Your task to perform on an android device: toggle notifications settings in the gmail app Image 0: 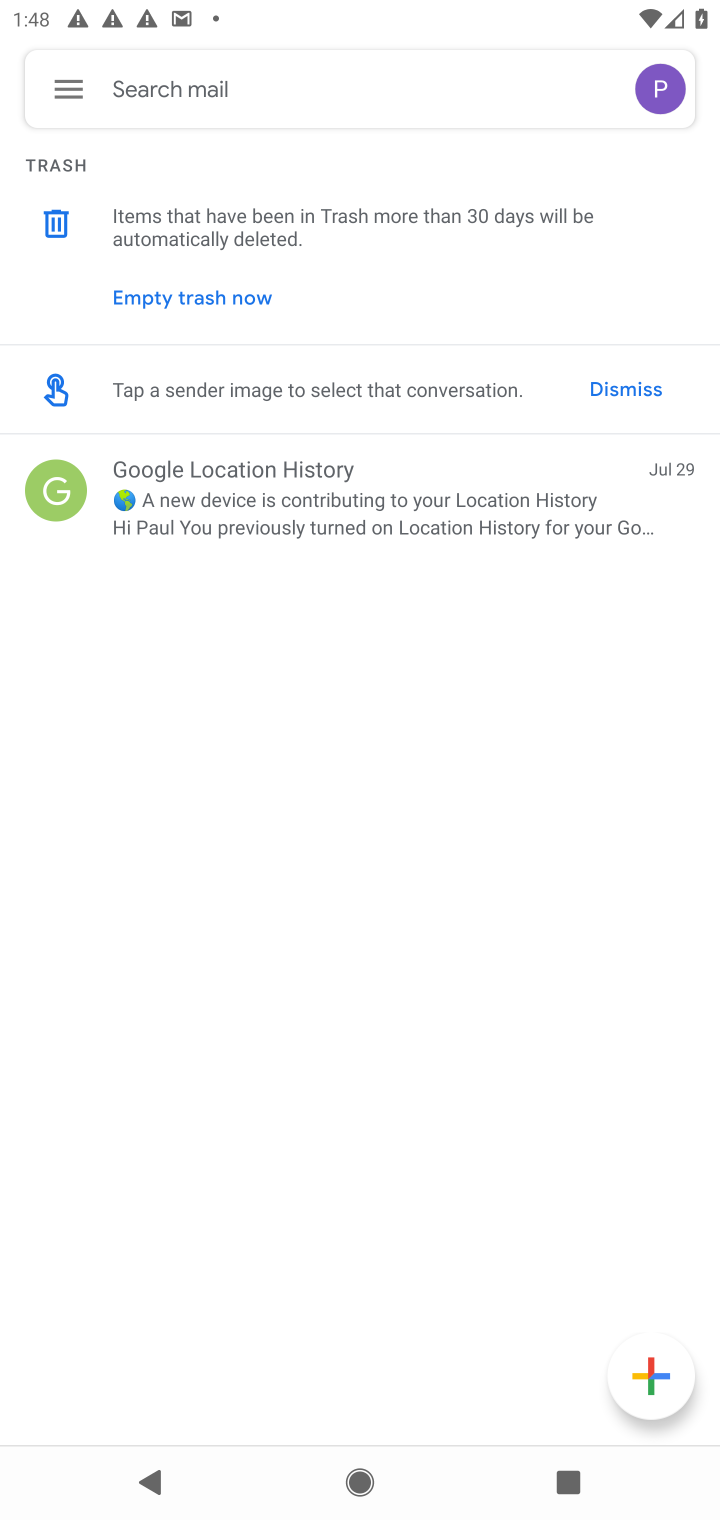
Step 0: press home button
Your task to perform on an android device: toggle notifications settings in the gmail app Image 1: 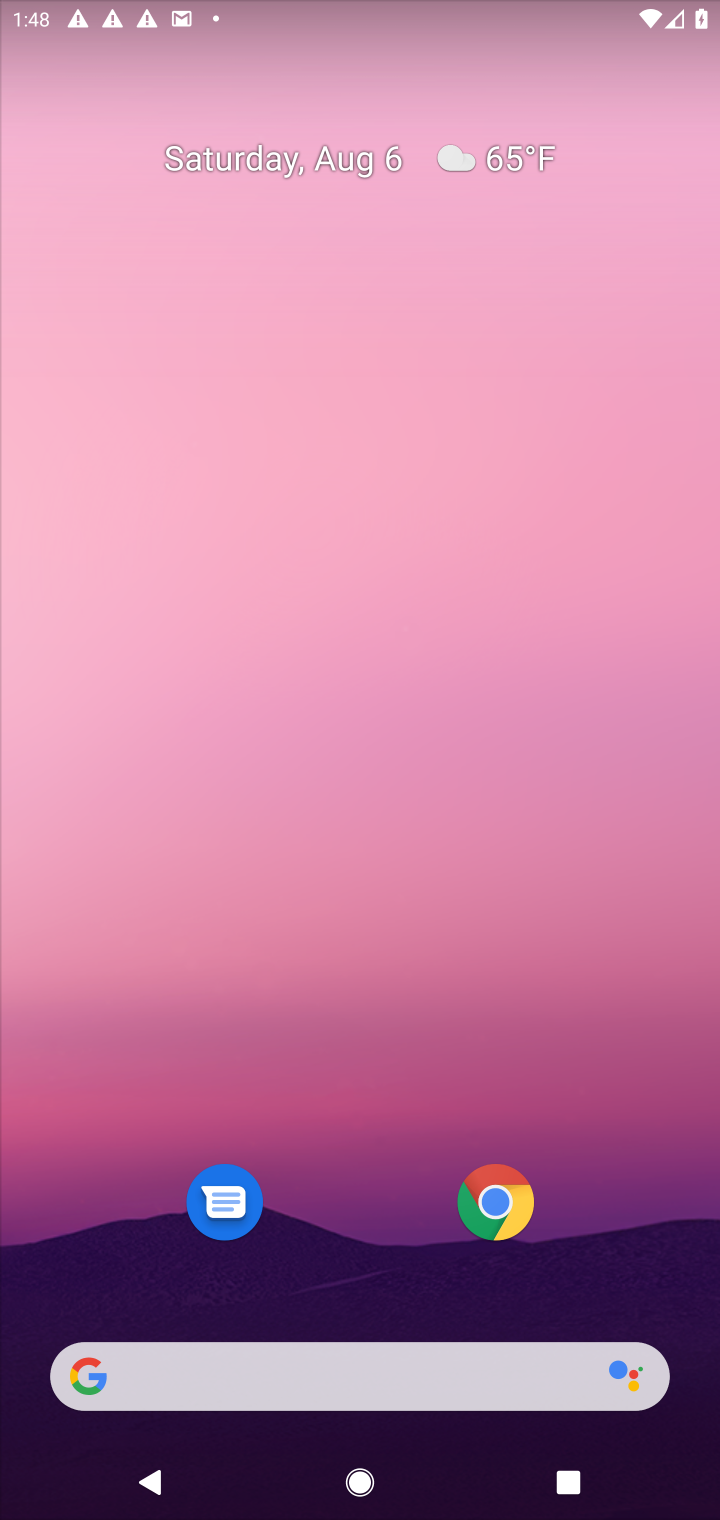
Step 1: drag from (404, 1316) to (442, 459)
Your task to perform on an android device: toggle notifications settings in the gmail app Image 2: 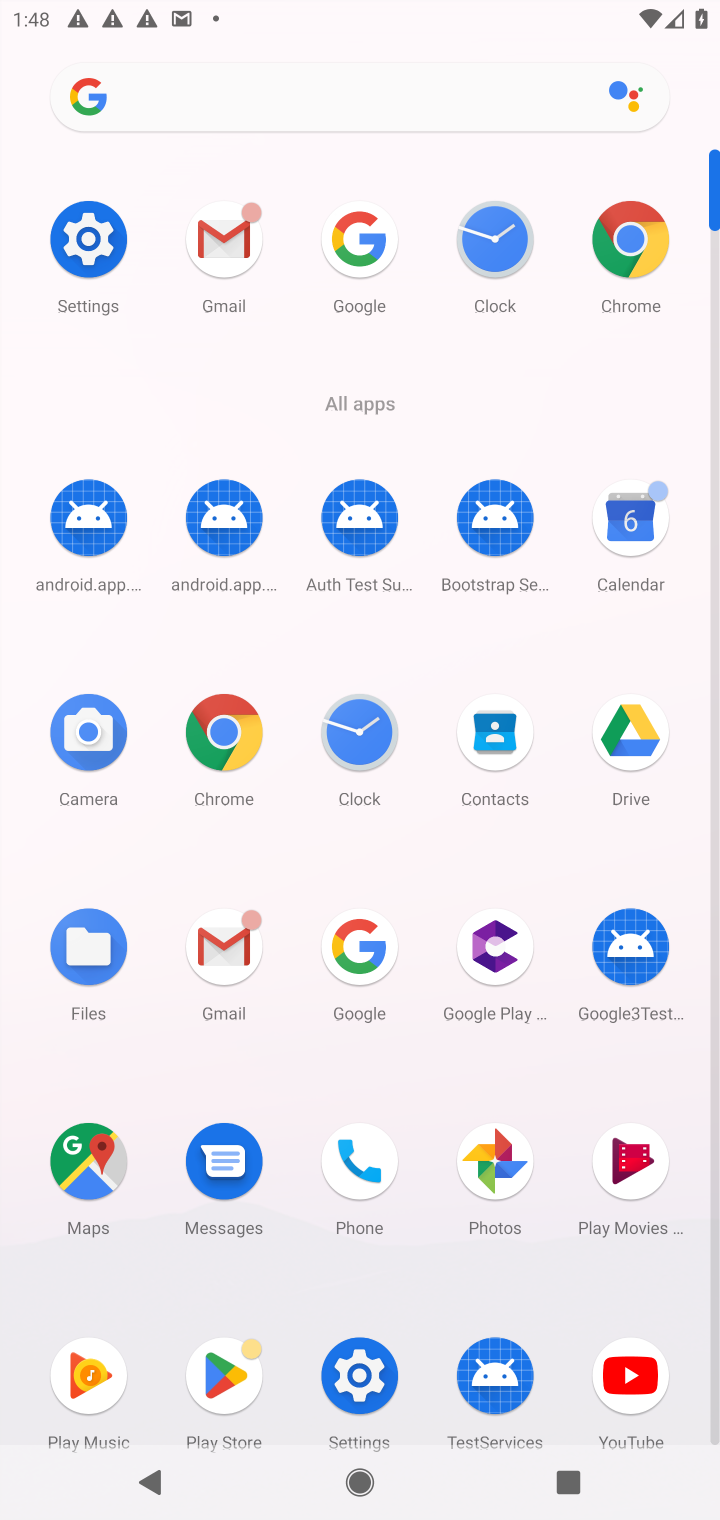
Step 2: click (207, 946)
Your task to perform on an android device: toggle notifications settings in the gmail app Image 3: 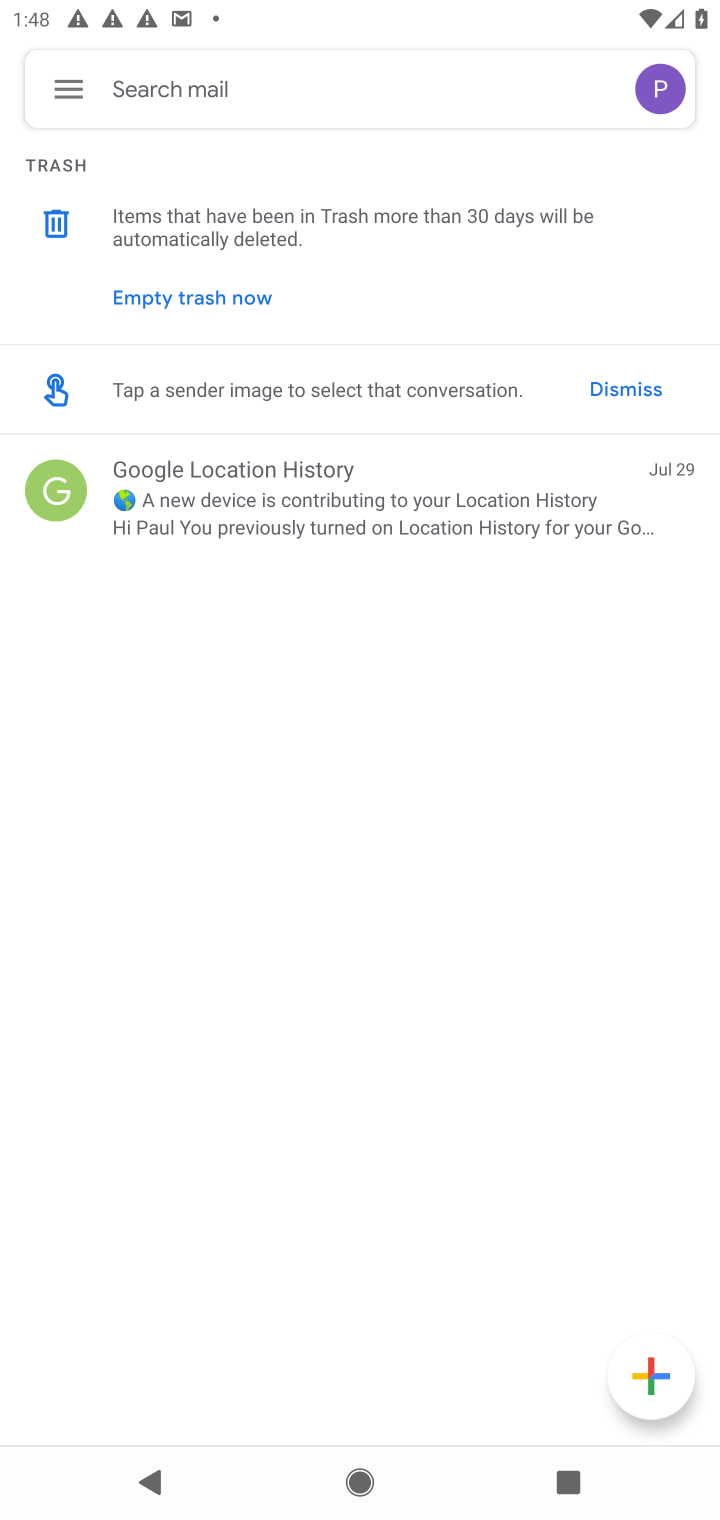
Step 3: drag from (74, 87) to (156, 87)
Your task to perform on an android device: toggle notifications settings in the gmail app Image 4: 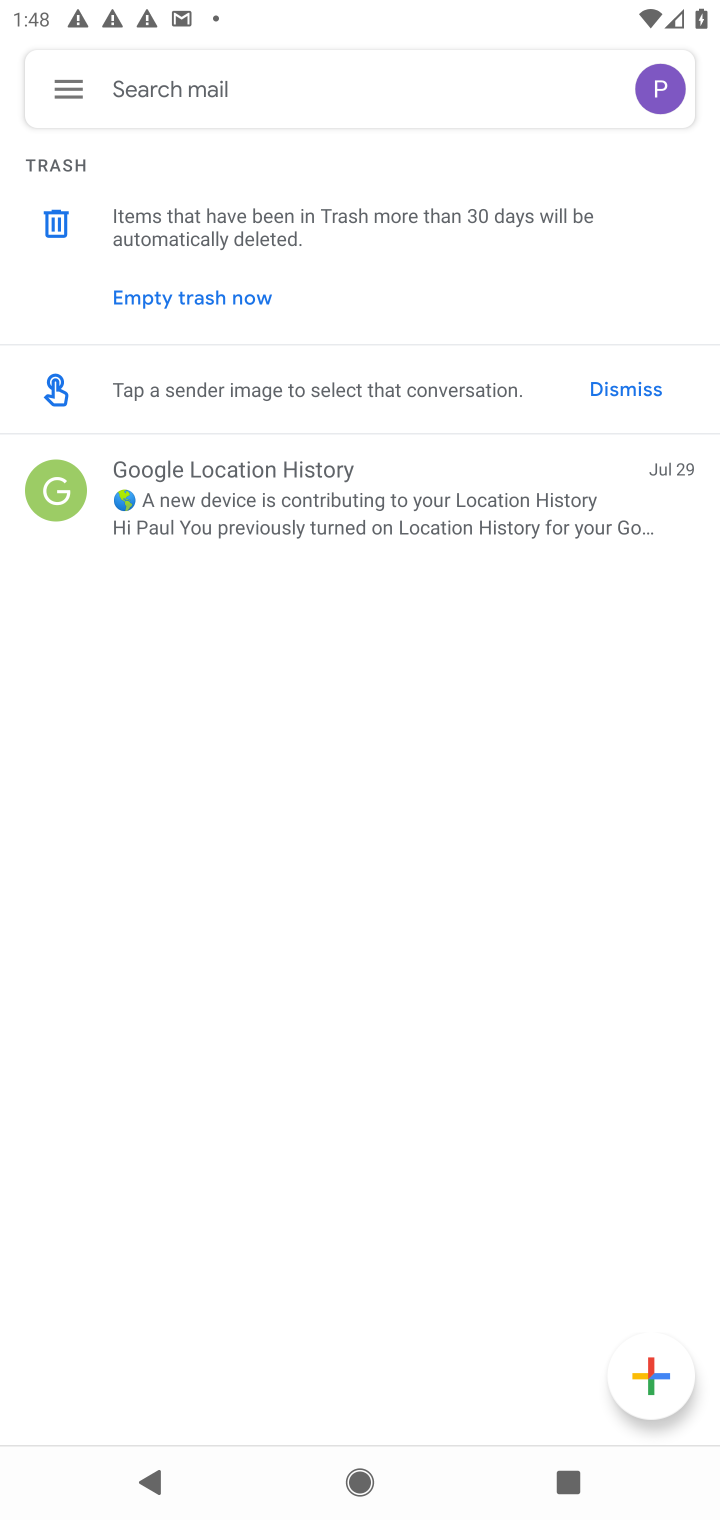
Step 4: click (67, 84)
Your task to perform on an android device: toggle notifications settings in the gmail app Image 5: 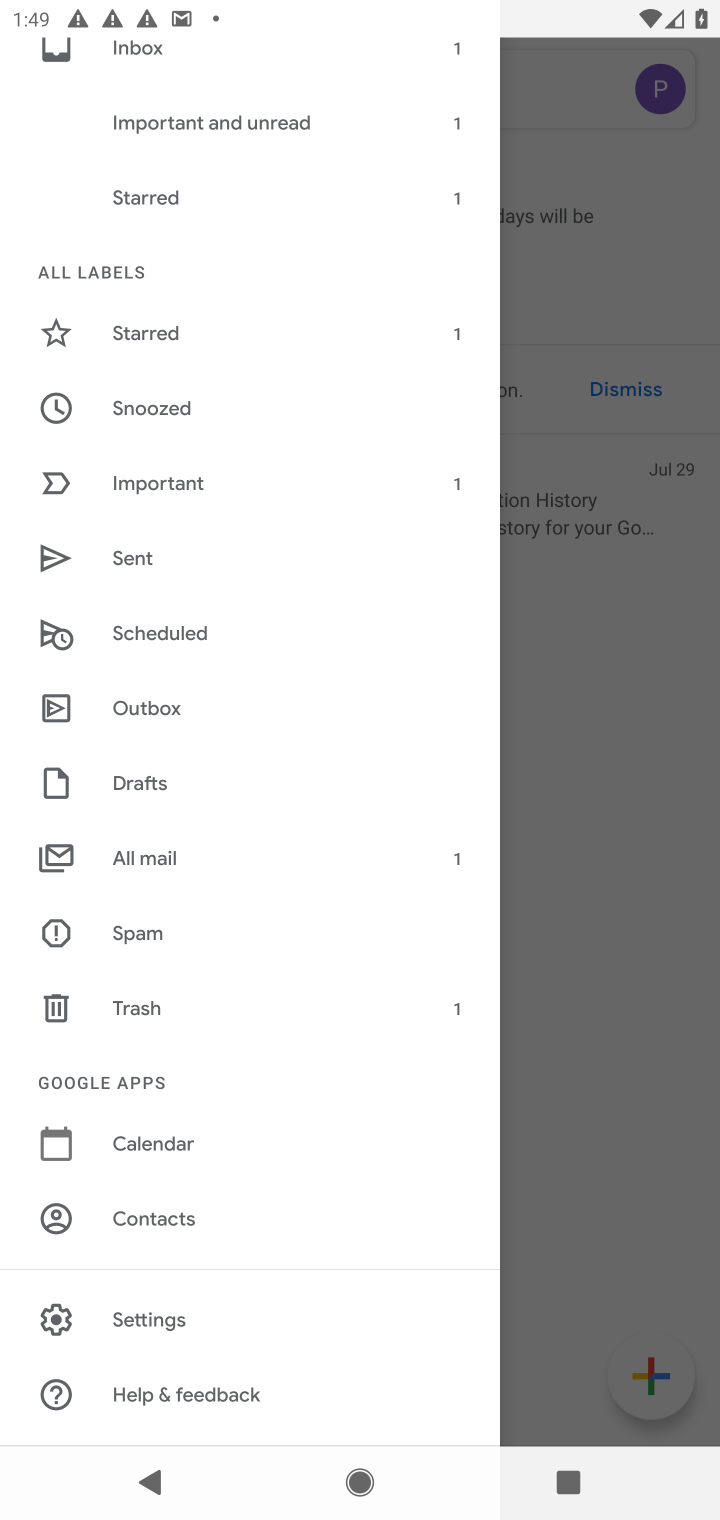
Step 5: click (152, 1321)
Your task to perform on an android device: toggle notifications settings in the gmail app Image 6: 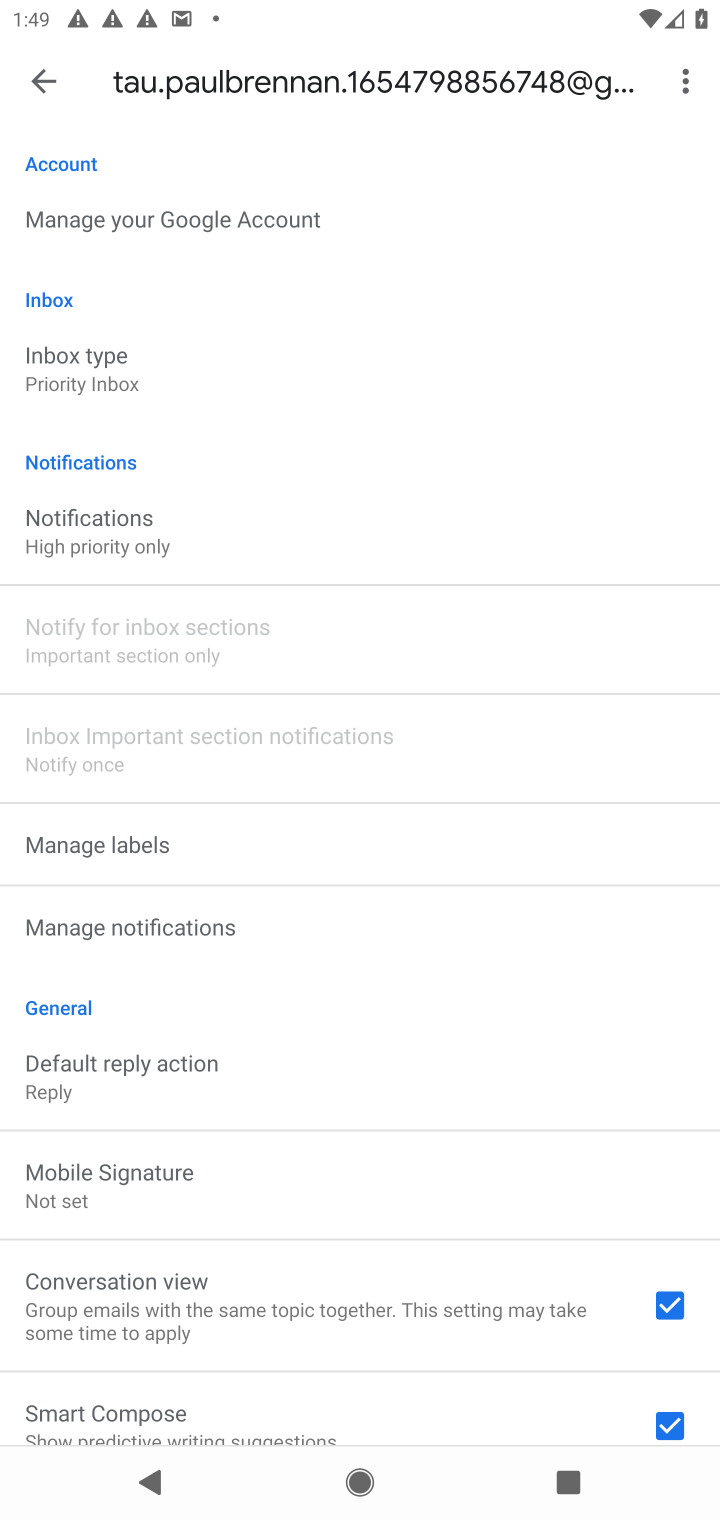
Step 6: click (80, 934)
Your task to perform on an android device: toggle notifications settings in the gmail app Image 7: 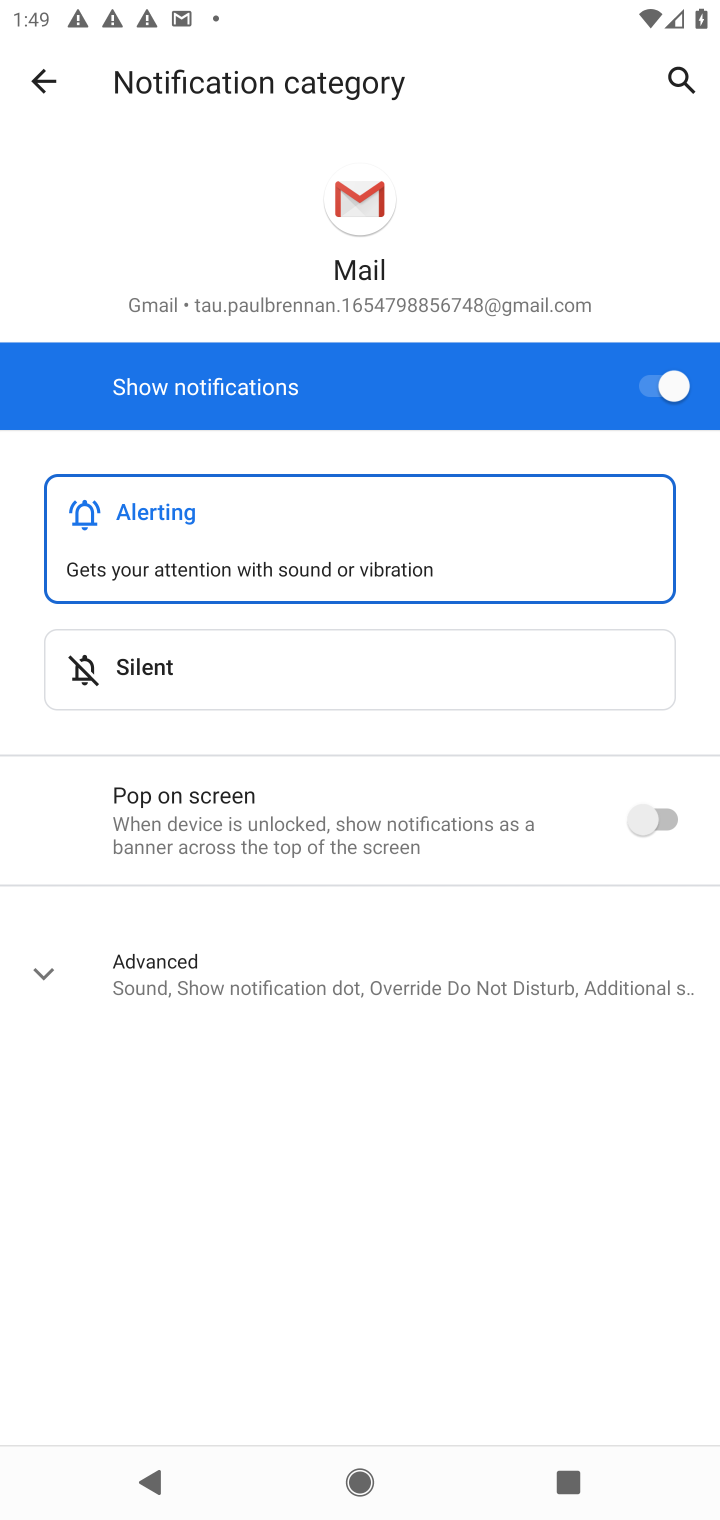
Step 7: click (652, 389)
Your task to perform on an android device: toggle notifications settings in the gmail app Image 8: 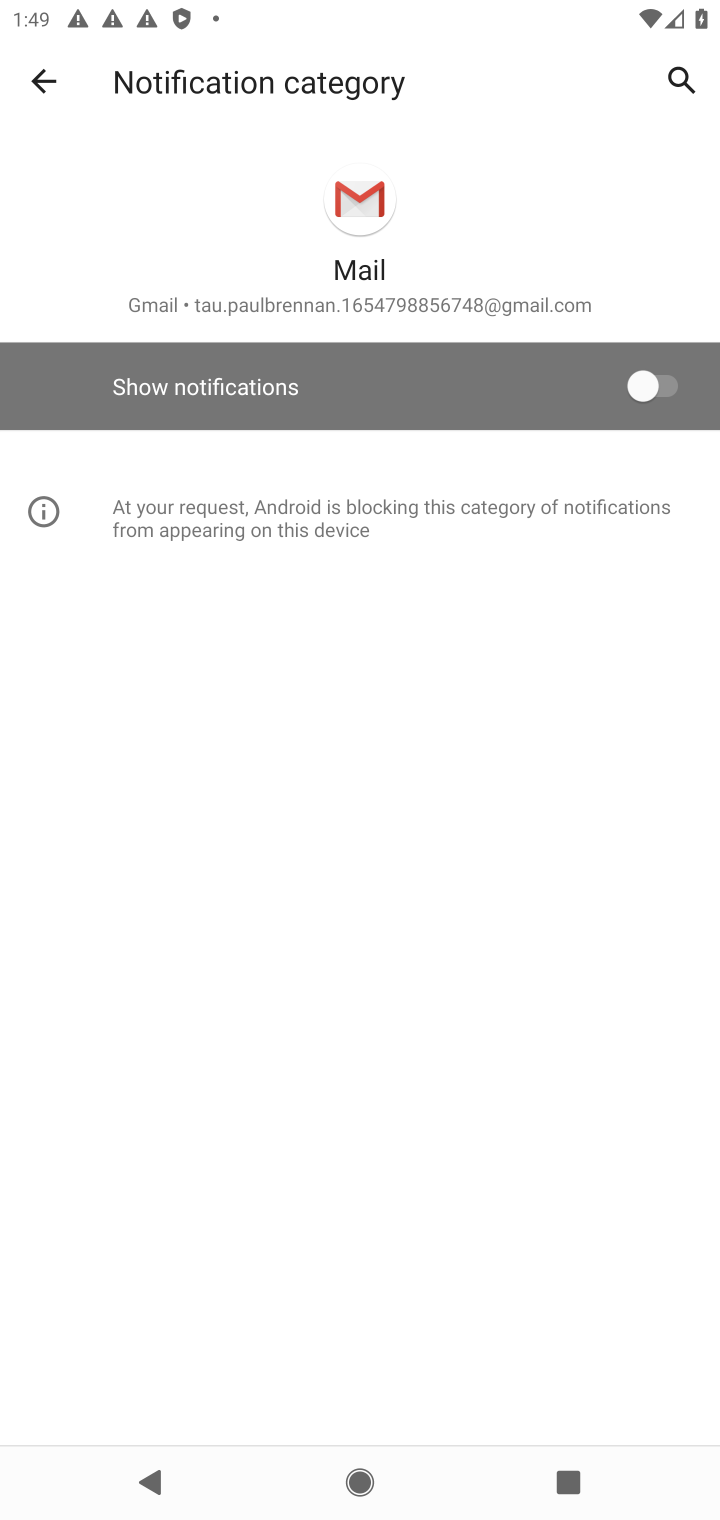
Step 8: task complete